Your task to perform on an android device: change alarm snooze length Image 0: 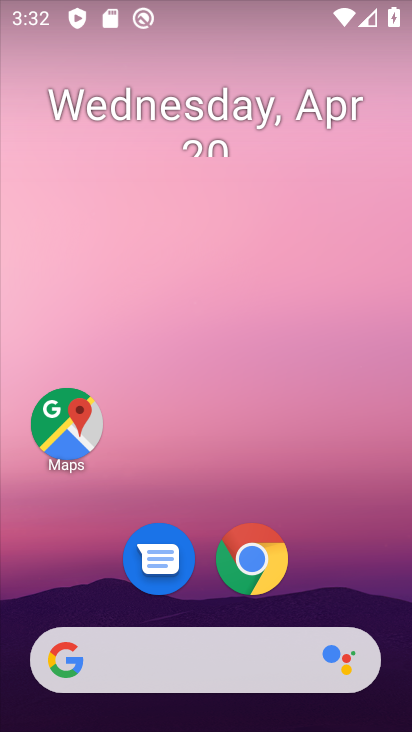
Step 0: drag from (199, 585) to (222, 193)
Your task to perform on an android device: change alarm snooze length Image 1: 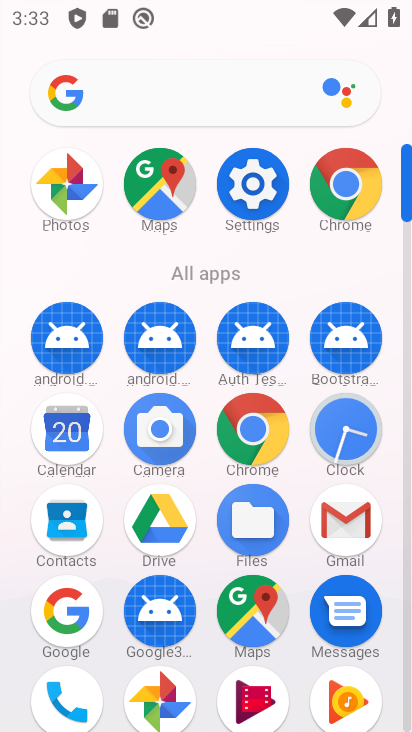
Step 1: click (343, 430)
Your task to perform on an android device: change alarm snooze length Image 2: 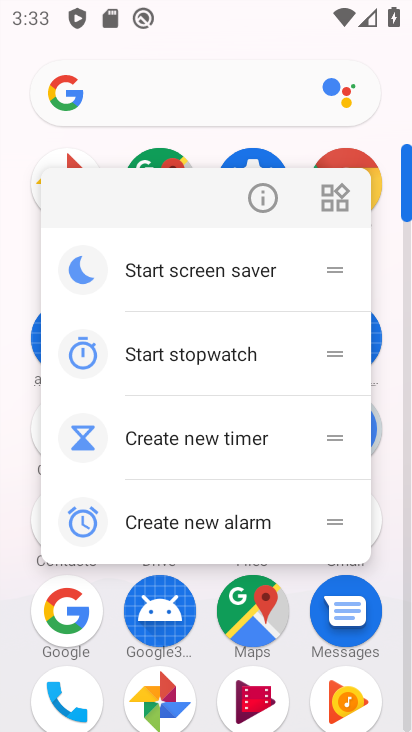
Step 2: click (256, 195)
Your task to perform on an android device: change alarm snooze length Image 3: 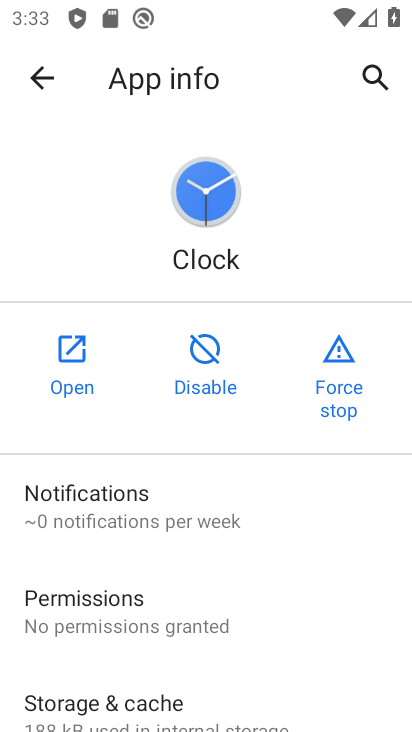
Step 3: click (82, 364)
Your task to perform on an android device: change alarm snooze length Image 4: 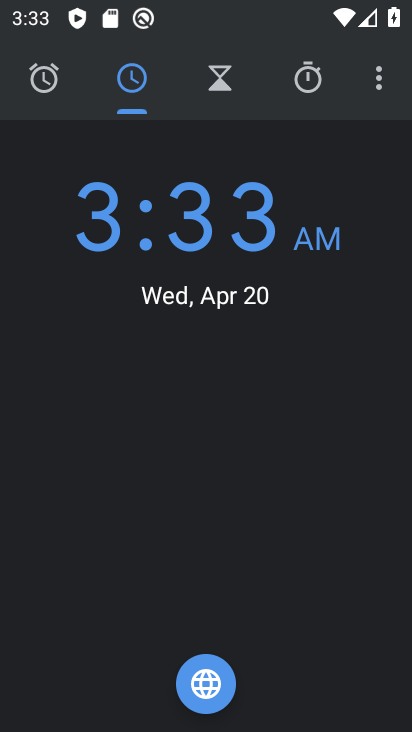
Step 4: click (383, 75)
Your task to perform on an android device: change alarm snooze length Image 5: 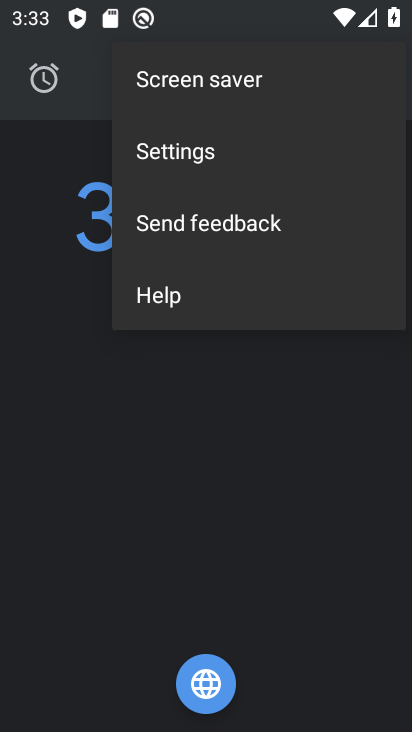
Step 5: click (207, 149)
Your task to perform on an android device: change alarm snooze length Image 6: 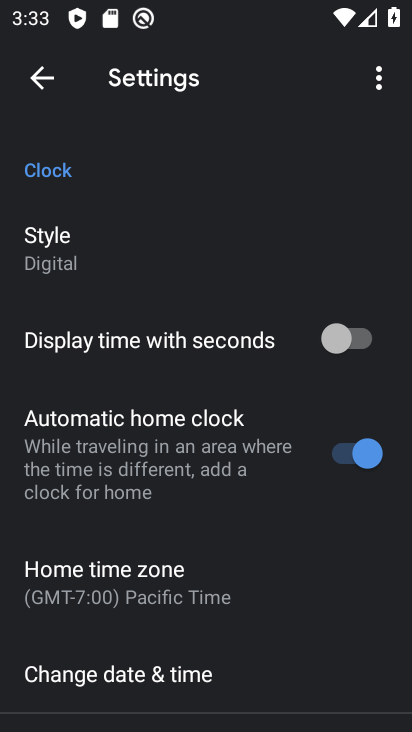
Step 6: drag from (103, 490) to (191, 138)
Your task to perform on an android device: change alarm snooze length Image 7: 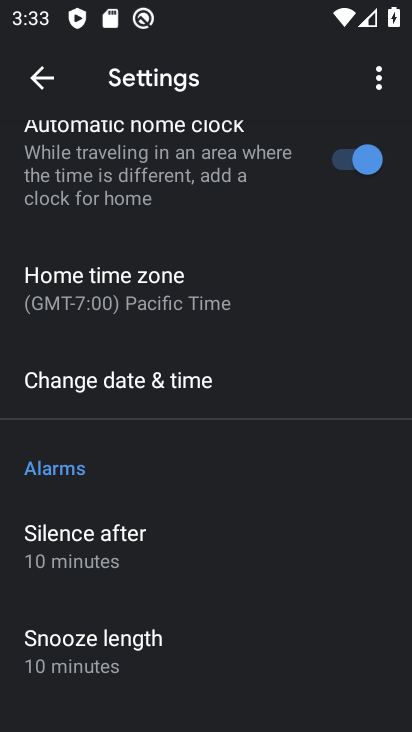
Step 7: drag from (149, 471) to (192, 258)
Your task to perform on an android device: change alarm snooze length Image 8: 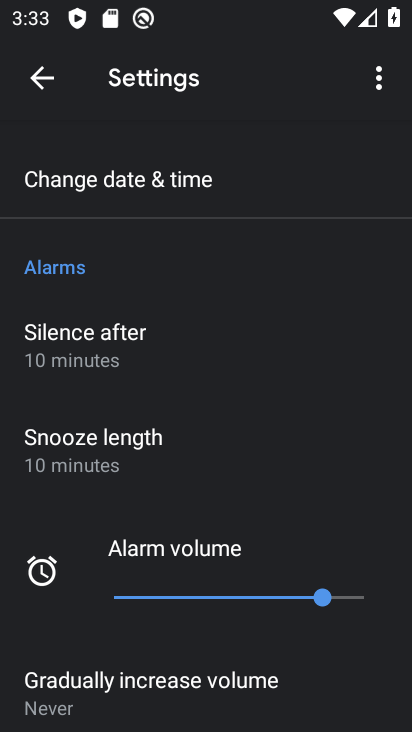
Step 8: click (104, 477)
Your task to perform on an android device: change alarm snooze length Image 9: 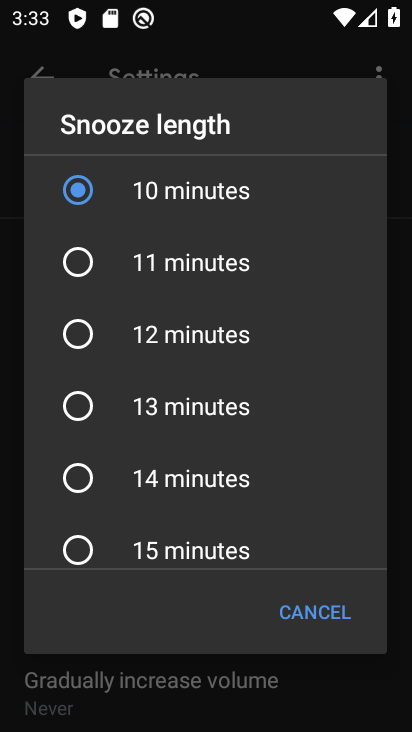
Step 9: click (85, 257)
Your task to perform on an android device: change alarm snooze length Image 10: 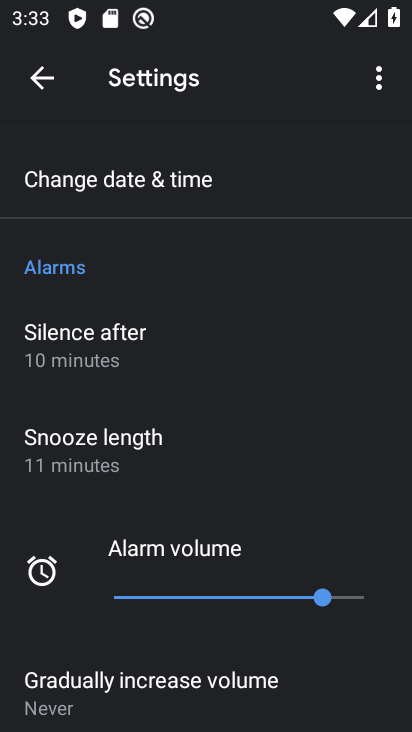
Step 10: task complete